Your task to perform on an android device: turn off priority inbox in the gmail app Image 0: 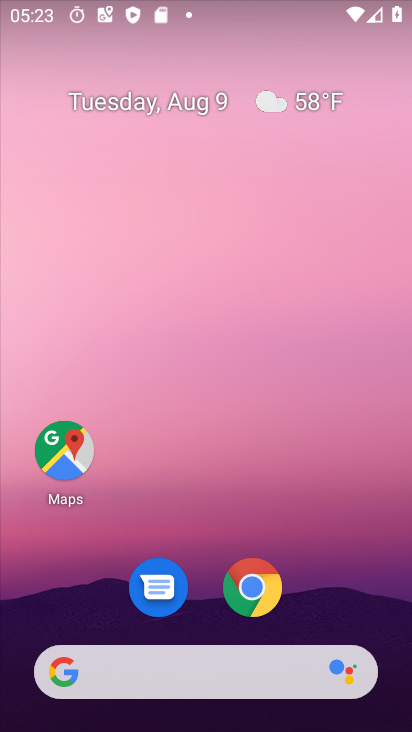
Step 0: drag from (167, 666) to (131, 2)
Your task to perform on an android device: turn off priority inbox in the gmail app Image 1: 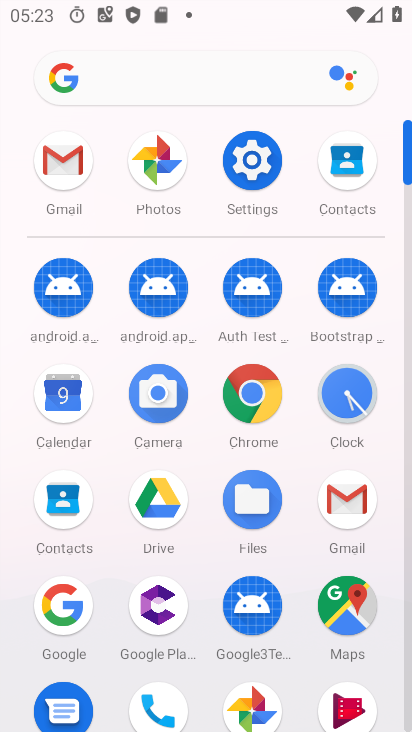
Step 1: click (338, 479)
Your task to perform on an android device: turn off priority inbox in the gmail app Image 2: 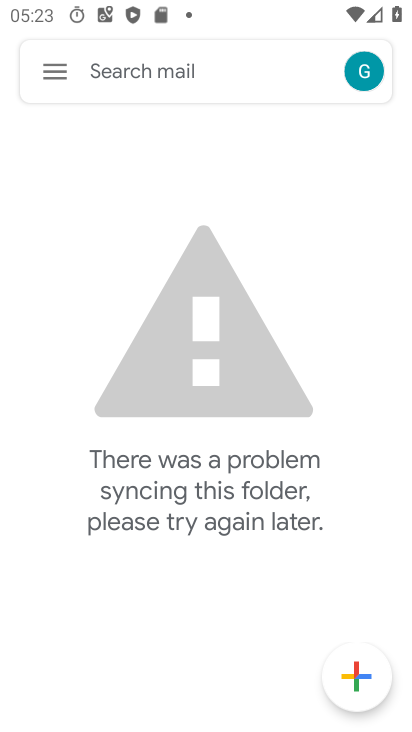
Step 2: click (59, 70)
Your task to perform on an android device: turn off priority inbox in the gmail app Image 3: 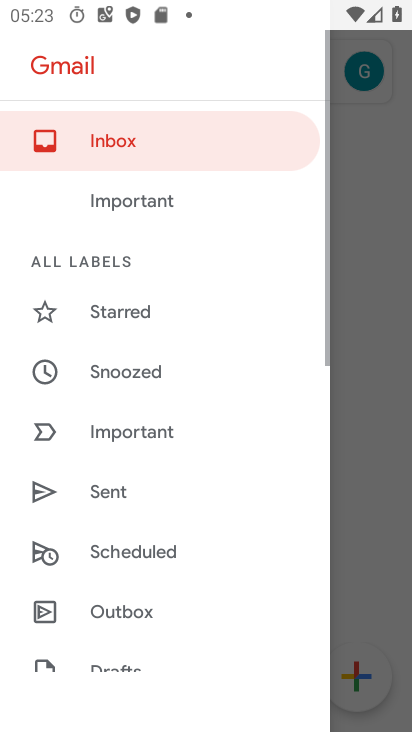
Step 3: drag from (127, 637) to (199, 6)
Your task to perform on an android device: turn off priority inbox in the gmail app Image 4: 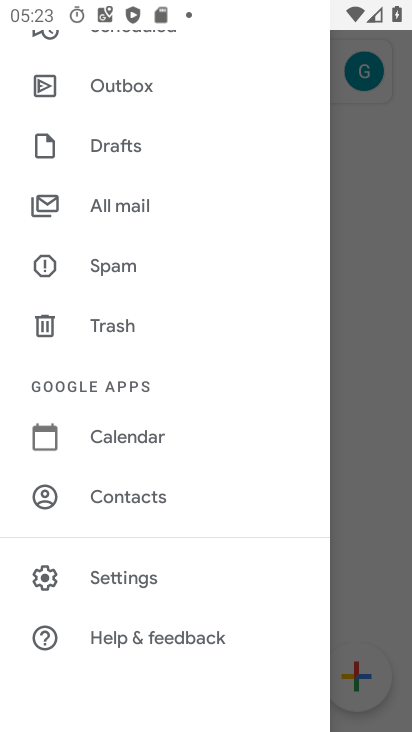
Step 4: click (119, 563)
Your task to perform on an android device: turn off priority inbox in the gmail app Image 5: 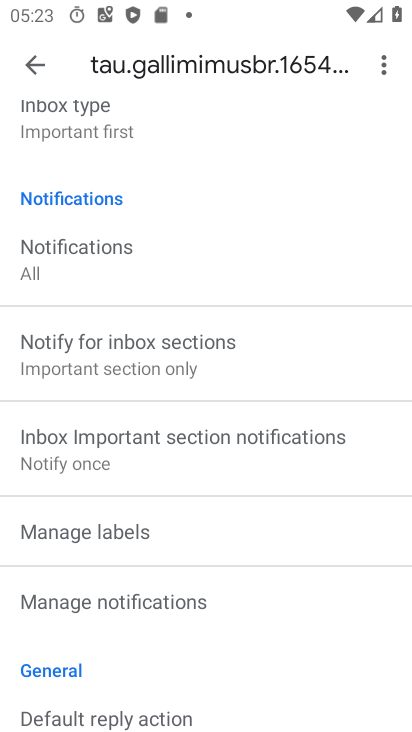
Step 5: drag from (103, 127) to (108, 515)
Your task to perform on an android device: turn off priority inbox in the gmail app Image 6: 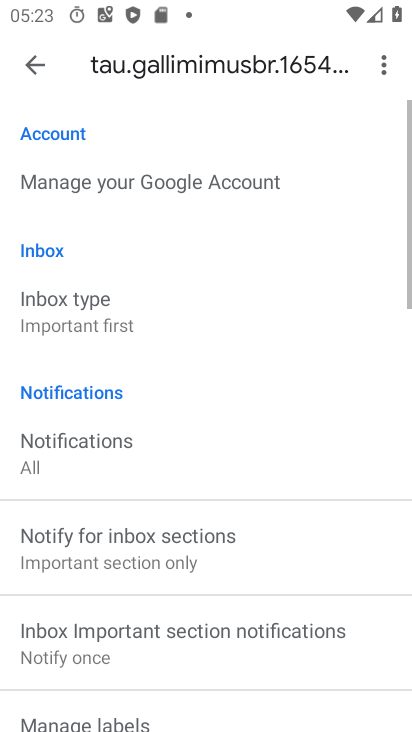
Step 6: click (93, 329)
Your task to perform on an android device: turn off priority inbox in the gmail app Image 7: 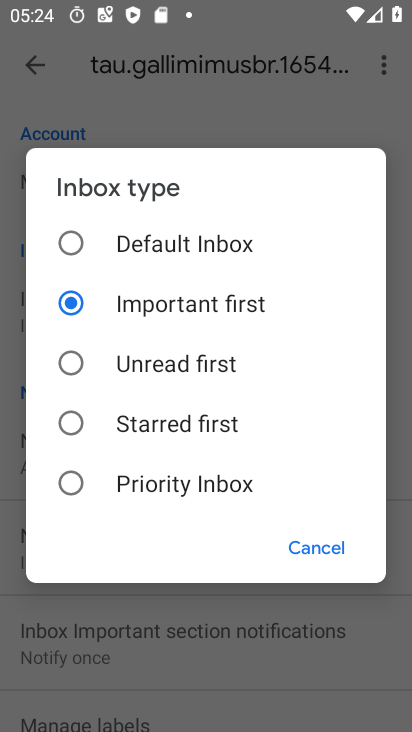
Step 7: click (135, 296)
Your task to perform on an android device: turn off priority inbox in the gmail app Image 8: 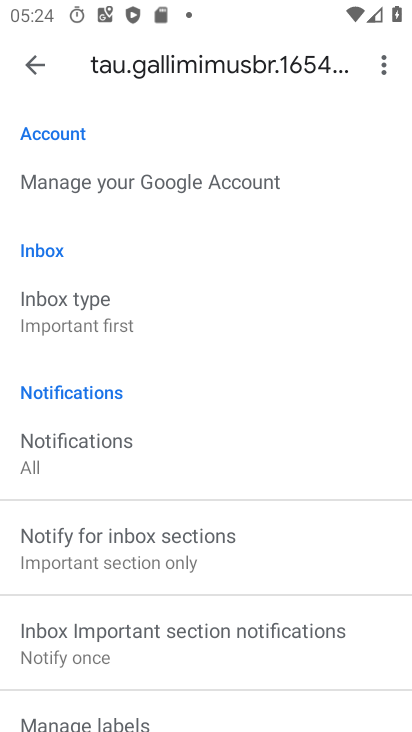
Step 8: task complete